Your task to perform on an android device: Show me recent news Image 0: 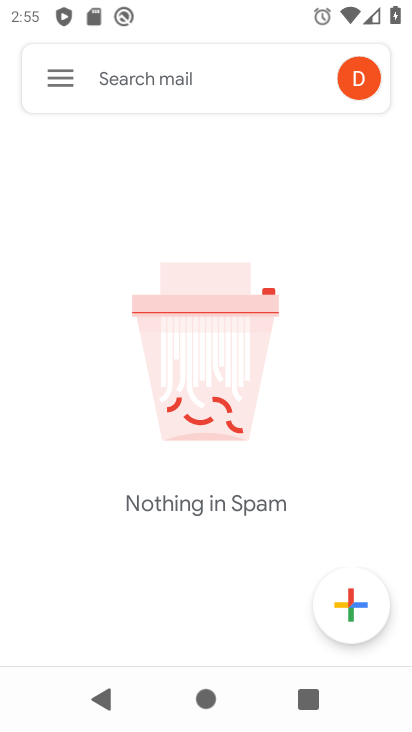
Step 0: press home button
Your task to perform on an android device: Show me recent news Image 1: 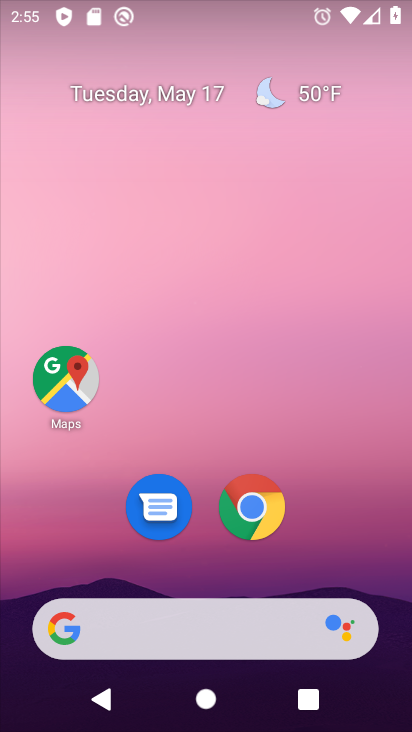
Step 1: drag from (342, 543) to (209, 26)
Your task to perform on an android device: Show me recent news Image 2: 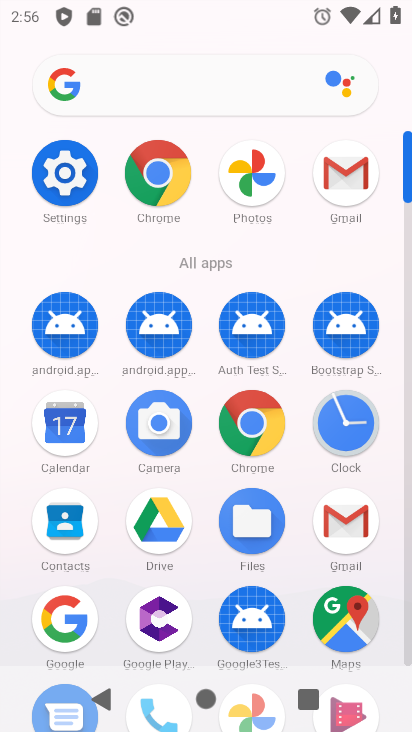
Step 2: click (68, 631)
Your task to perform on an android device: Show me recent news Image 3: 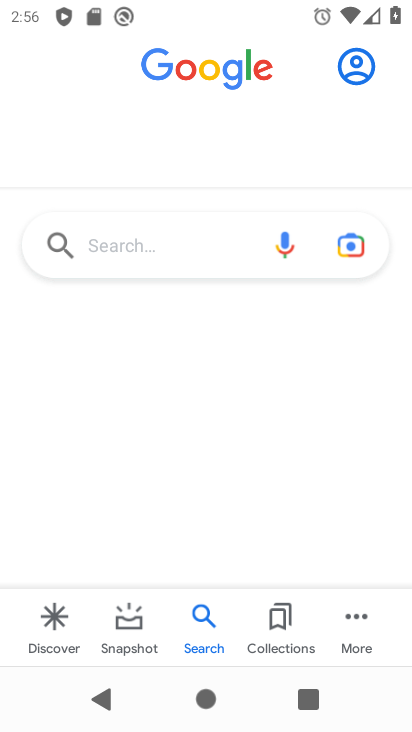
Step 3: click (187, 251)
Your task to perform on an android device: Show me recent news Image 4: 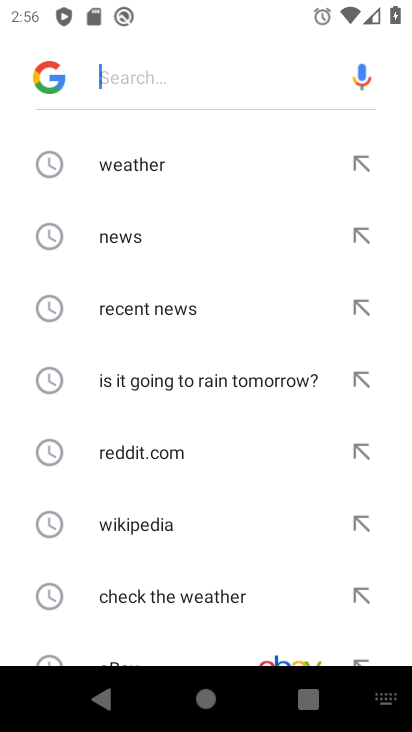
Step 4: click (168, 310)
Your task to perform on an android device: Show me recent news Image 5: 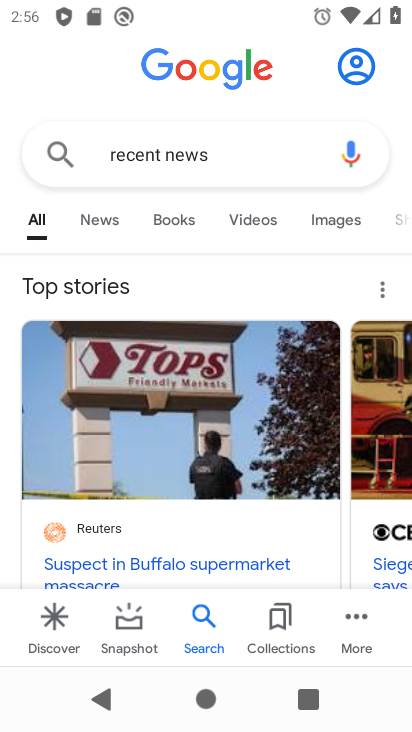
Step 5: task complete